Your task to perform on an android device: turn on wifi Image 0: 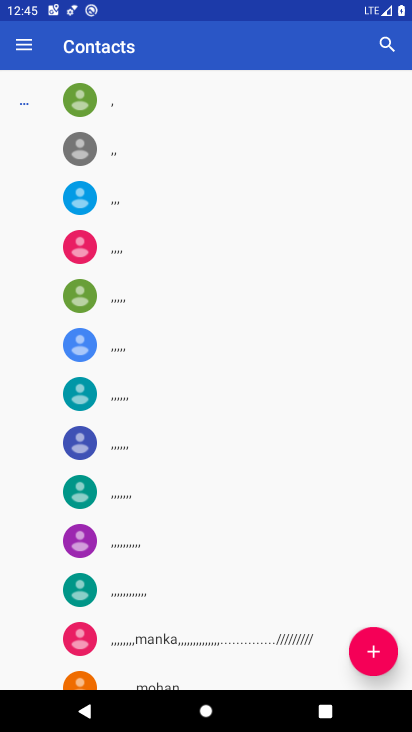
Step 0: press home button
Your task to perform on an android device: turn on wifi Image 1: 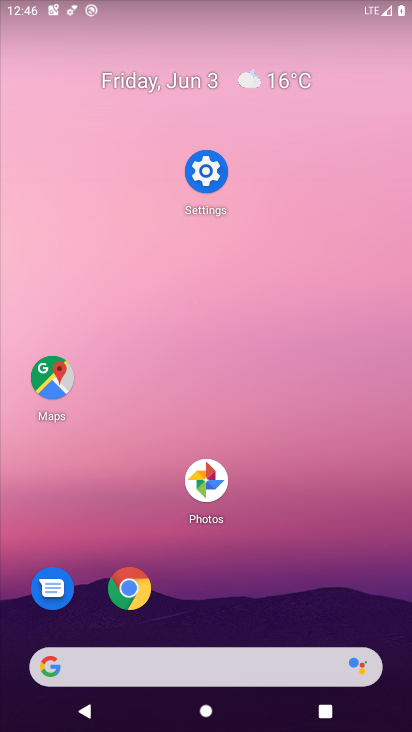
Step 1: drag from (173, 550) to (192, 310)
Your task to perform on an android device: turn on wifi Image 2: 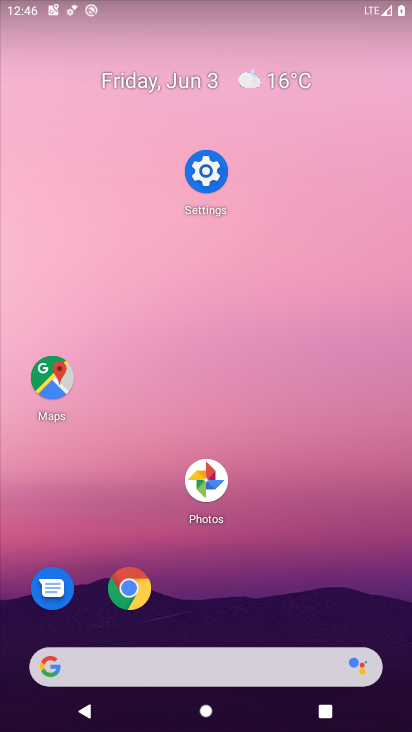
Step 2: click (213, 174)
Your task to perform on an android device: turn on wifi Image 3: 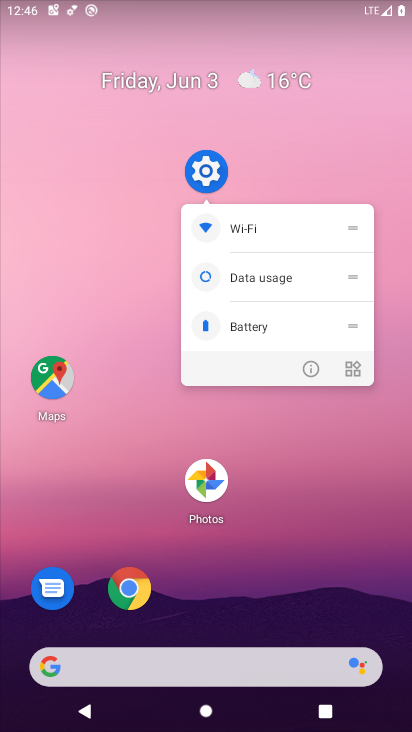
Step 3: click (301, 364)
Your task to perform on an android device: turn on wifi Image 4: 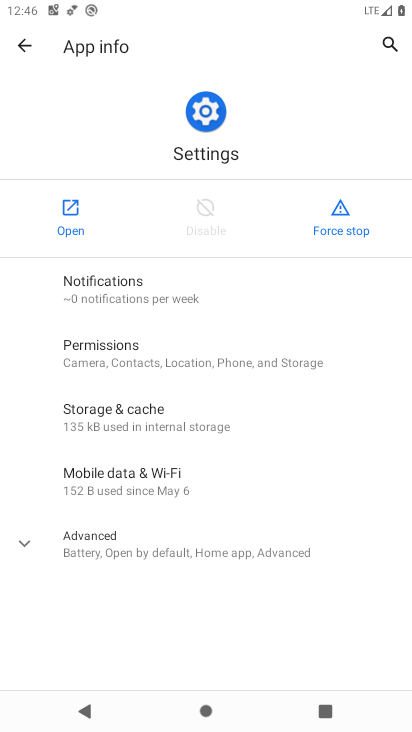
Step 4: click (67, 213)
Your task to perform on an android device: turn on wifi Image 5: 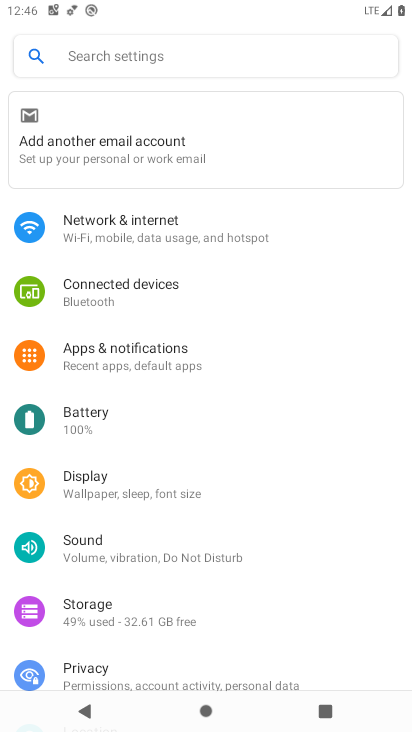
Step 5: click (156, 234)
Your task to perform on an android device: turn on wifi Image 6: 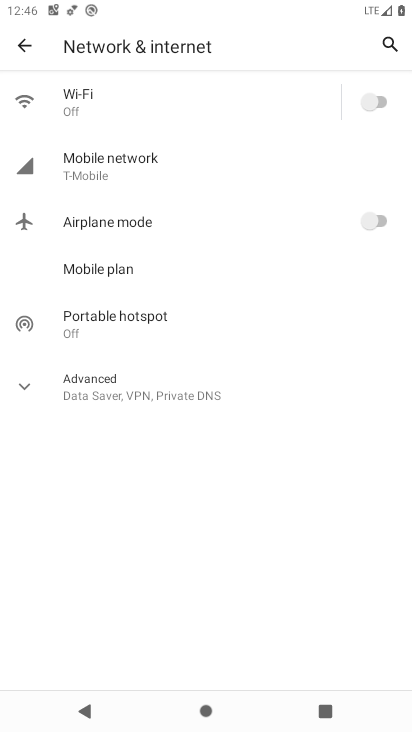
Step 6: click (347, 94)
Your task to perform on an android device: turn on wifi Image 7: 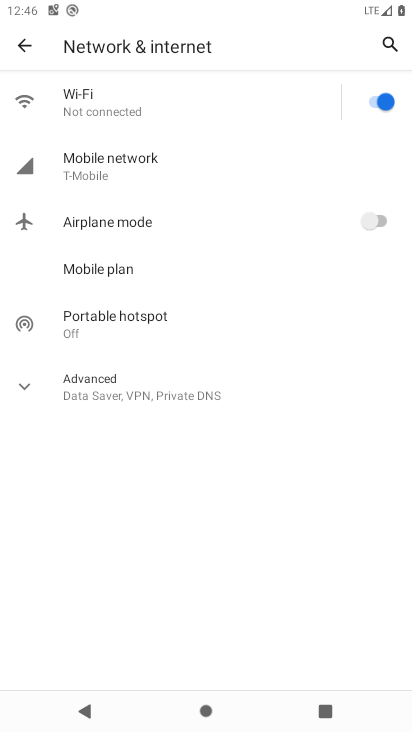
Step 7: task complete